Your task to perform on an android device: turn on javascript in the chrome app Image 0: 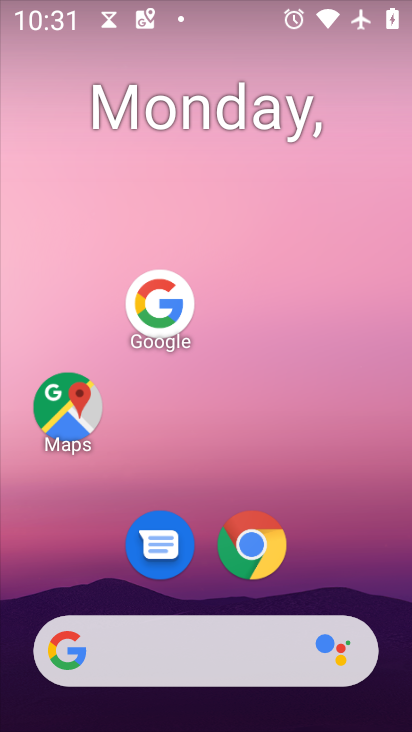
Step 0: press home button
Your task to perform on an android device: turn on javascript in the chrome app Image 1: 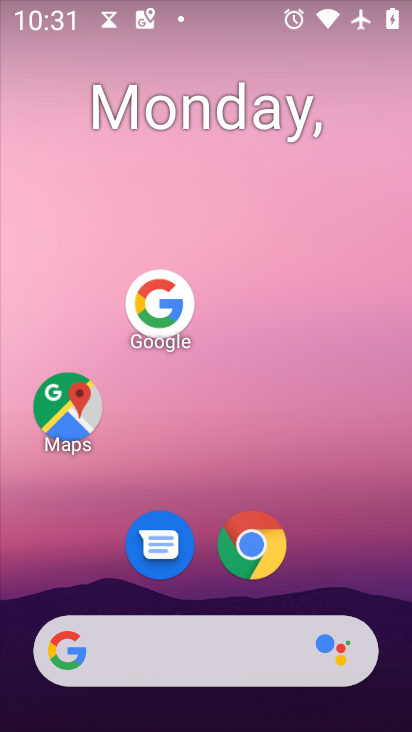
Step 1: click (261, 553)
Your task to perform on an android device: turn on javascript in the chrome app Image 2: 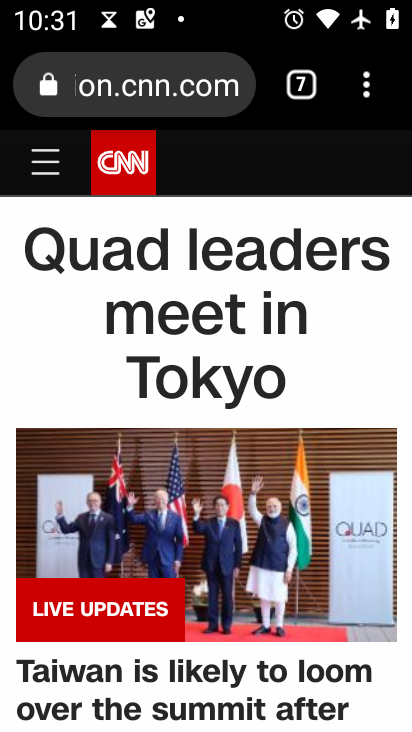
Step 2: drag from (369, 91) to (280, 610)
Your task to perform on an android device: turn on javascript in the chrome app Image 3: 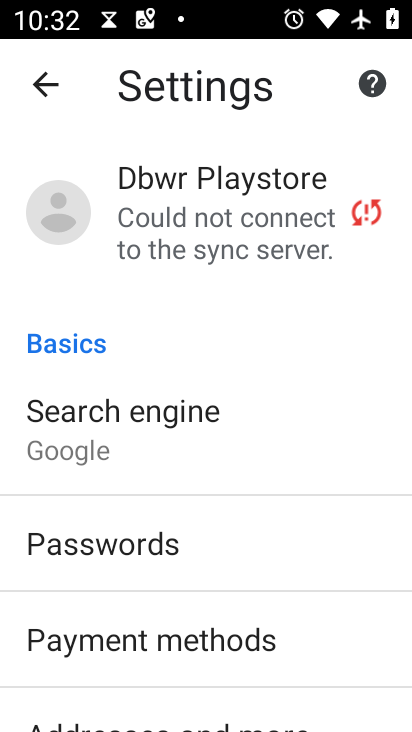
Step 3: drag from (235, 679) to (400, 273)
Your task to perform on an android device: turn on javascript in the chrome app Image 4: 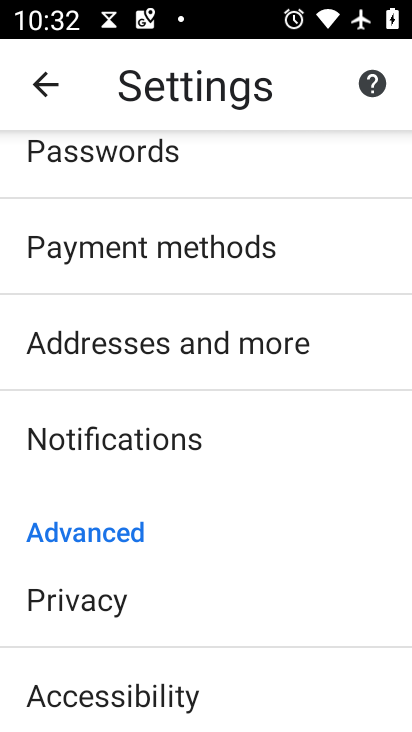
Step 4: drag from (196, 672) to (361, 307)
Your task to perform on an android device: turn on javascript in the chrome app Image 5: 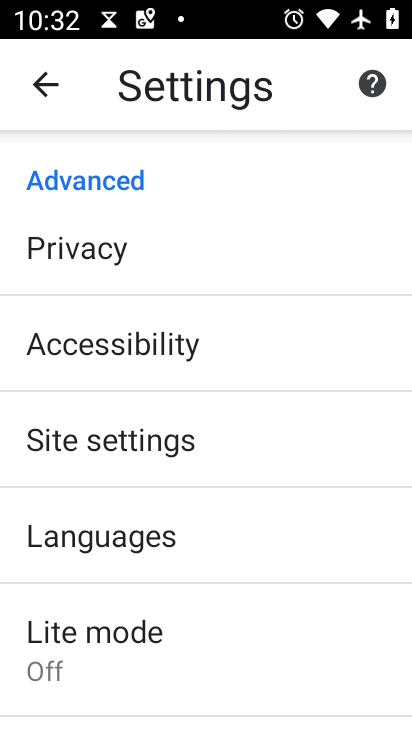
Step 5: click (144, 445)
Your task to perform on an android device: turn on javascript in the chrome app Image 6: 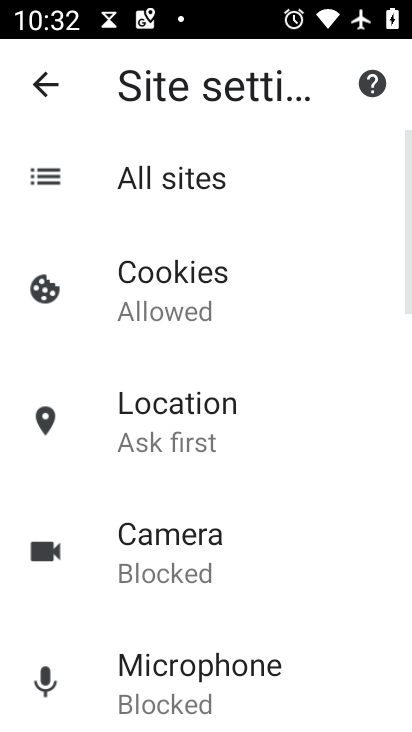
Step 6: drag from (283, 686) to (401, 224)
Your task to perform on an android device: turn on javascript in the chrome app Image 7: 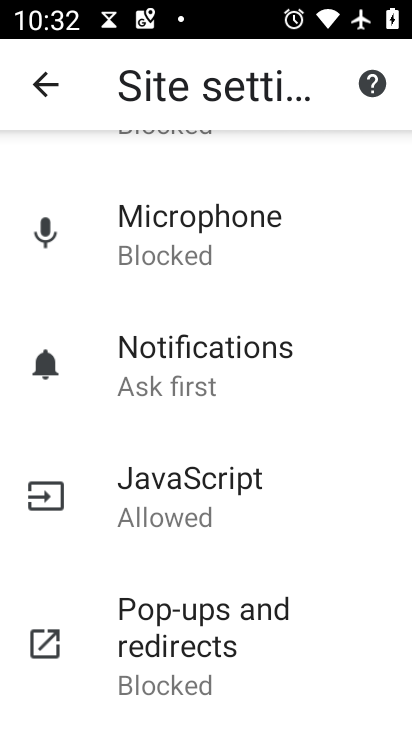
Step 7: click (221, 487)
Your task to perform on an android device: turn on javascript in the chrome app Image 8: 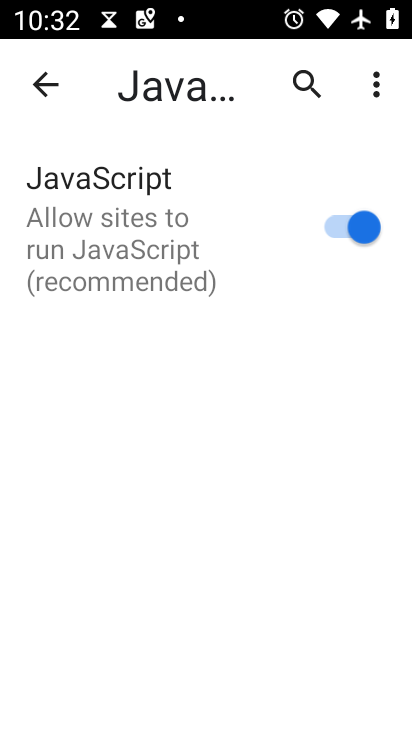
Step 8: task complete